Your task to perform on an android device: open wifi settings Image 0: 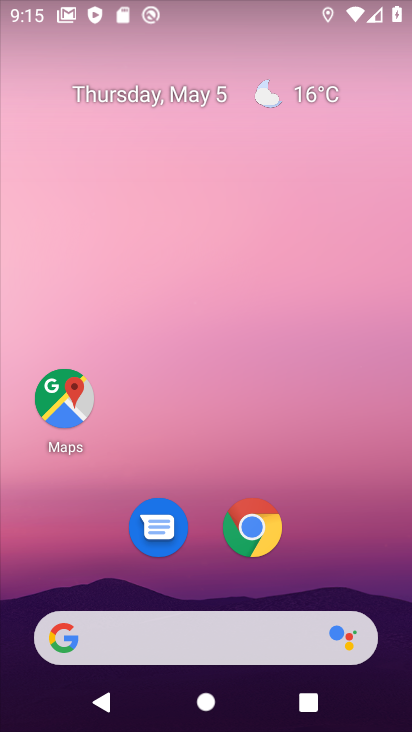
Step 0: drag from (75, 578) to (227, 66)
Your task to perform on an android device: open wifi settings Image 1: 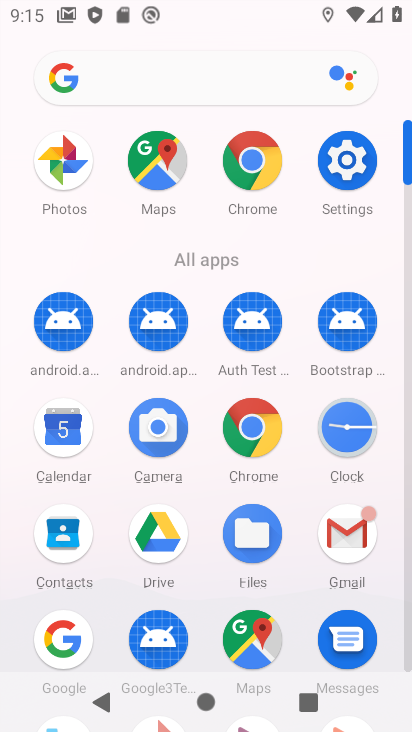
Step 1: click (356, 164)
Your task to perform on an android device: open wifi settings Image 2: 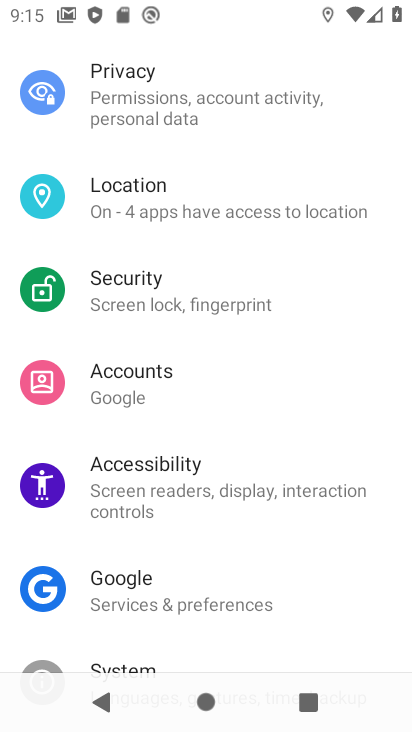
Step 2: drag from (205, 126) to (175, 533)
Your task to perform on an android device: open wifi settings Image 3: 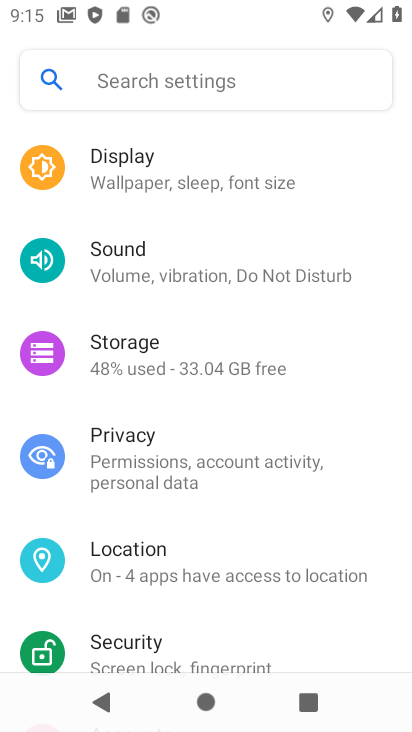
Step 3: drag from (256, 166) to (233, 534)
Your task to perform on an android device: open wifi settings Image 4: 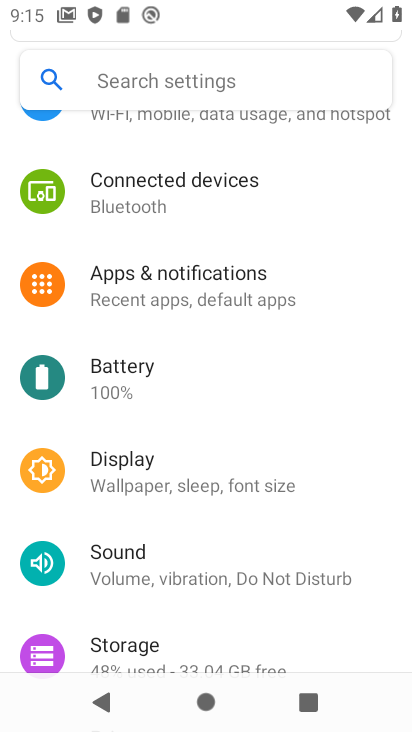
Step 4: drag from (250, 207) to (207, 500)
Your task to perform on an android device: open wifi settings Image 5: 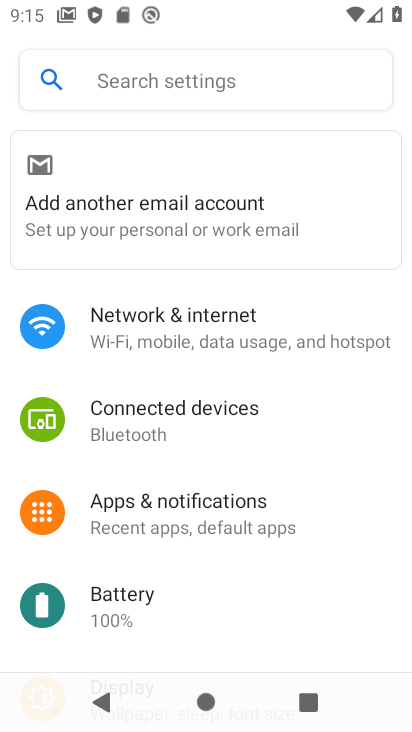
Step 5: click (197, 329)
Your task to perform on an android device: open wifi settings Image 6: 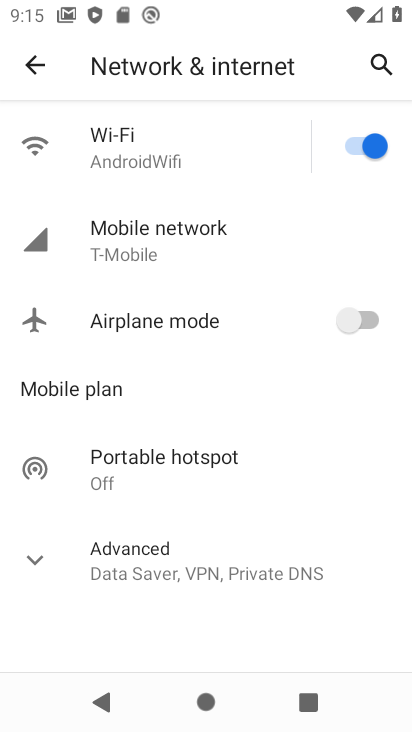
Step 6: click (211, 180)
Your task to perform on an android device: open wifi settings Image 7: 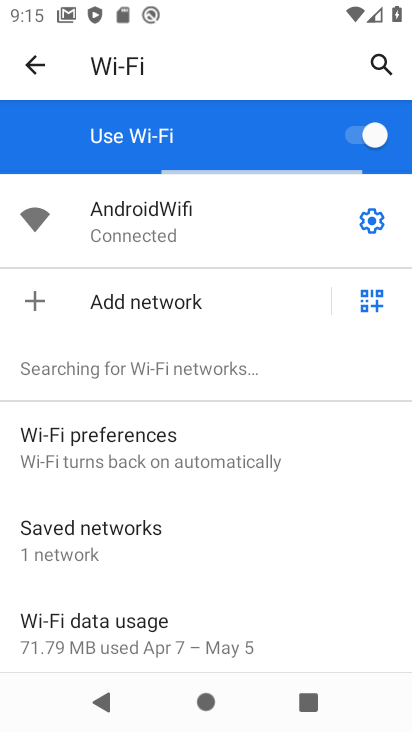
Step 7: task complete